Your task to perform on an android device: toggle javascript in the chrome app Image 0: 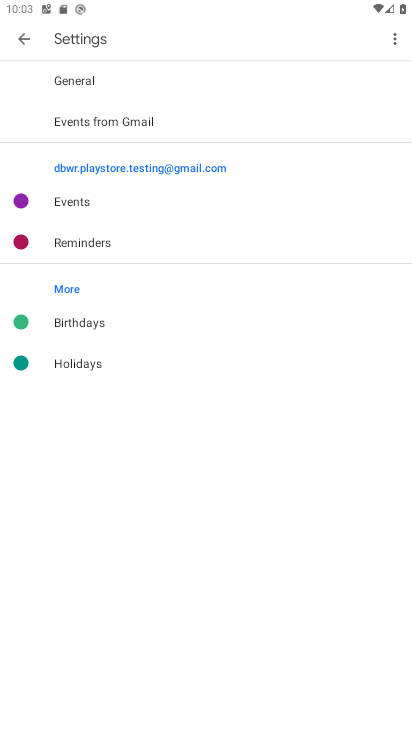
Step 0: press back button
Your task to perform on an android device: toggle javascript in the chrome app Image 1: 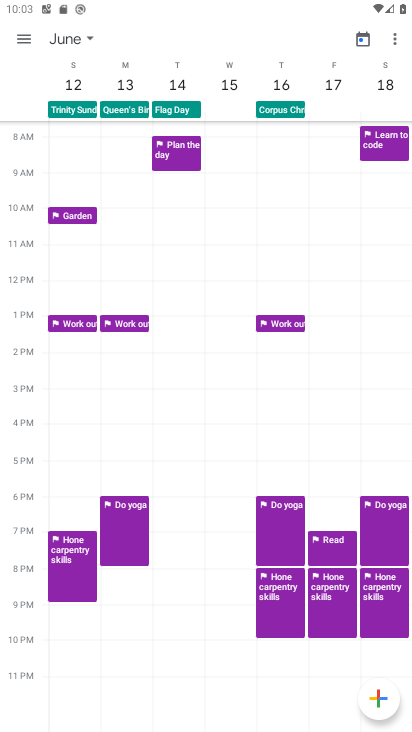
Step 1: press back button
Your task to perform on an android device: toggle javascript in the chrome app Image 2: 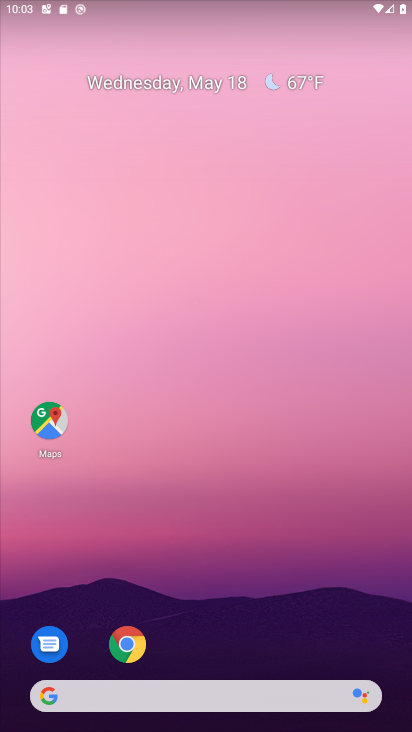
Step 2: click (128, 643)
Your task to perform on an android device: toggle javascript in the chrome app Image 3: 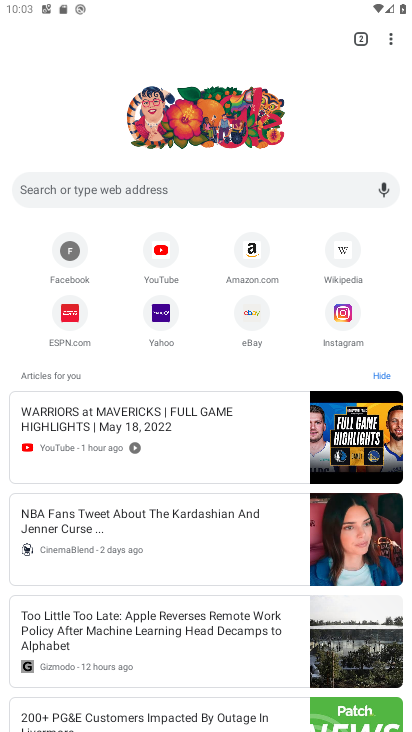
Step 3: click (391, 40)
Your task to perform on an android device: toggle javascript in the chrome app Image 4: 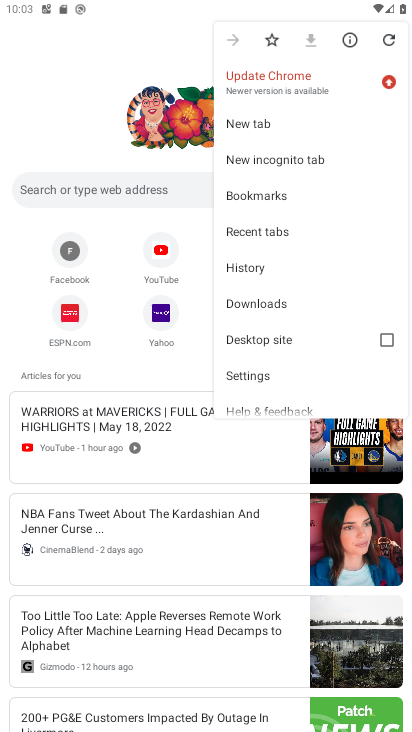
Step 4: click (250, 379)
Your task to perform on an android device: toggle javascript in the chrome app Image 5: 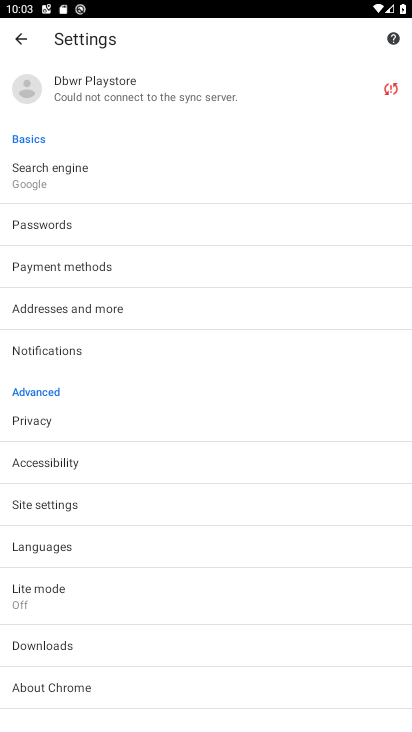
Step 5: click (50, 502)
Your task to perform on an android device: toggle javascript in the chrome app Image 6: 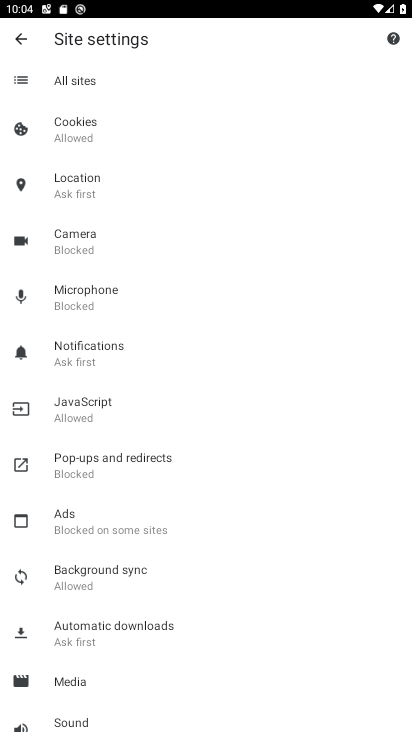
Step 6: click (82, 401)
Your task to perform on an android device: toggle javascript in the chrome app Image 7: 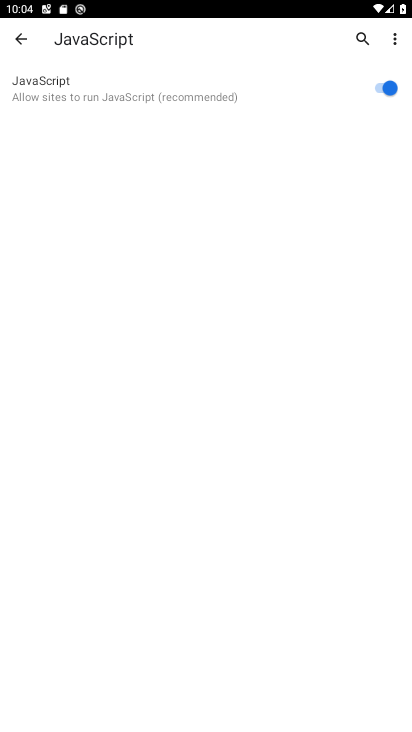
Step 7: click (391, 91)
Your task to perform on an android device: toggle javascript in the chrome app Image 8: 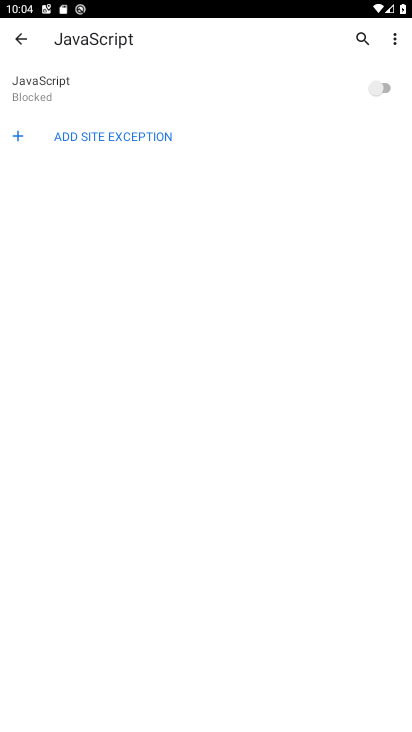
Step 8: task complete